Your task to perform on an android device: see sites visited before in the chrome app Image 0: 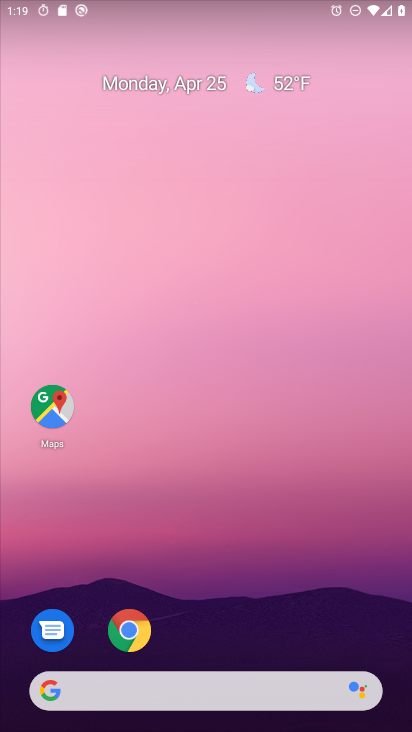
Step 0: drag from (204, 644) to (259, 73)
Your task to perform on an android device: see sites visited before in the chrome app Image 1: 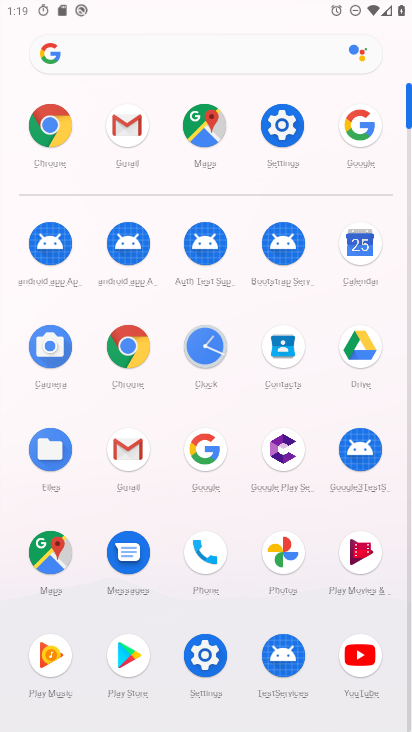
Step 1: click (133, 348)
Your task to perform on an android device: see sites visited before in the chrome app Image 2: 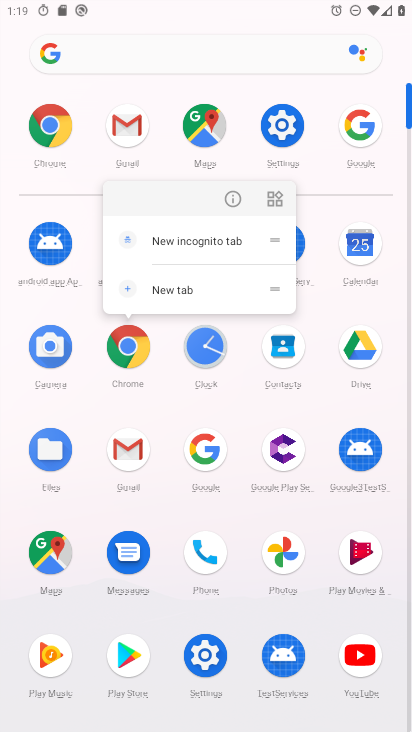
Step 2: click (221, 214)
Your task to perform on an android device: see sites visited before in the chrome app Image 3: 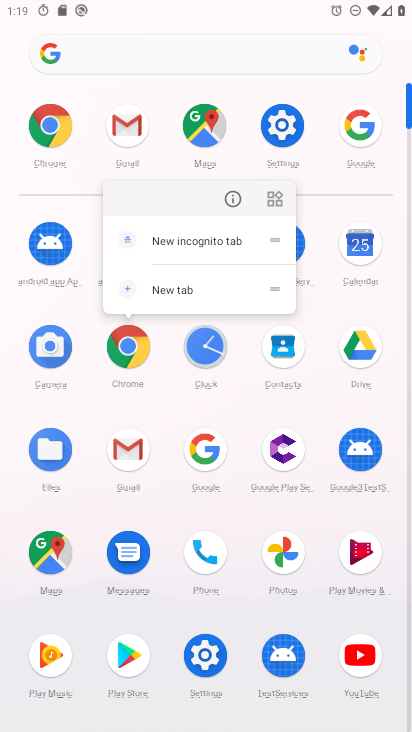
Step 3: click (222, 212)
Your task to perform on an android device: see sites visited before in the chrome app Image 4: 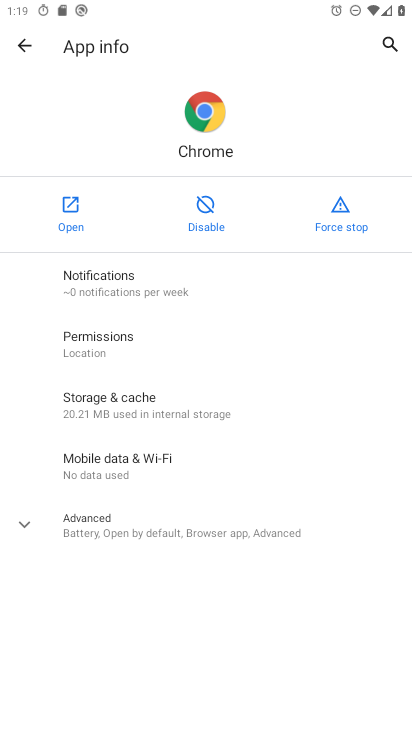
Step 4: click (58, 208)
Your task to perform on an android device: see sites visited before in the chrome app Image 5: 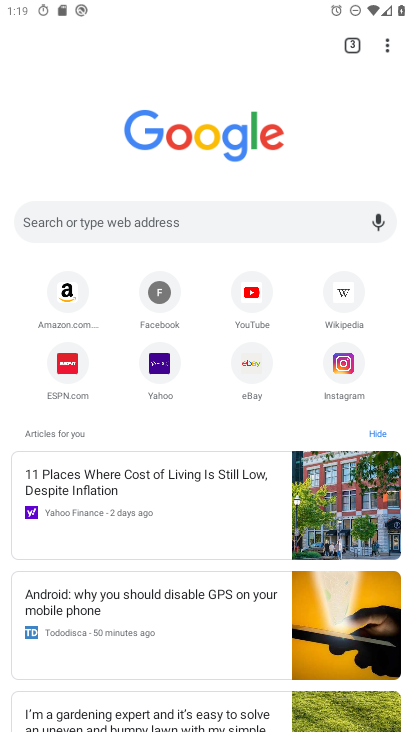
Step 5: drag from (393, 39) to (257, 439)
Your task to perform on an android device: see sites visited before in the chrome app Image 6: 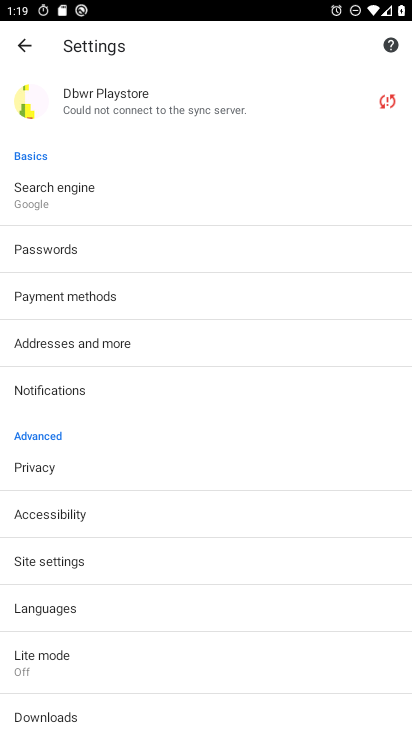
Step 6: click (104, 552)
Your task to perform on an android device: see sites visited before in the chrome app Image 7: 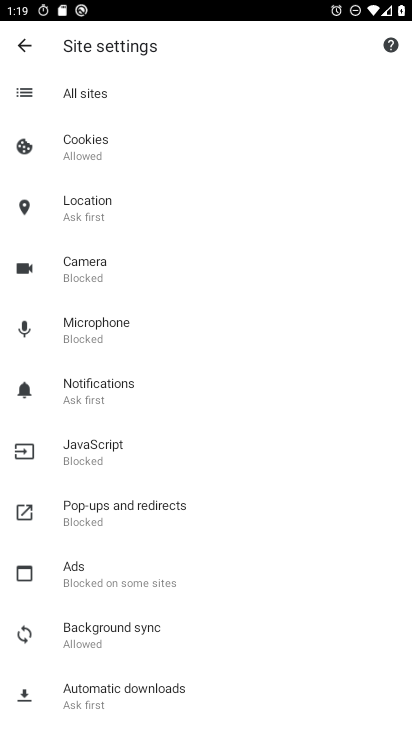
Step 7: drag from (238, 236) to (218, 619)
Your task to perform on an android device: see sites visited before in the chrome app Image 8: 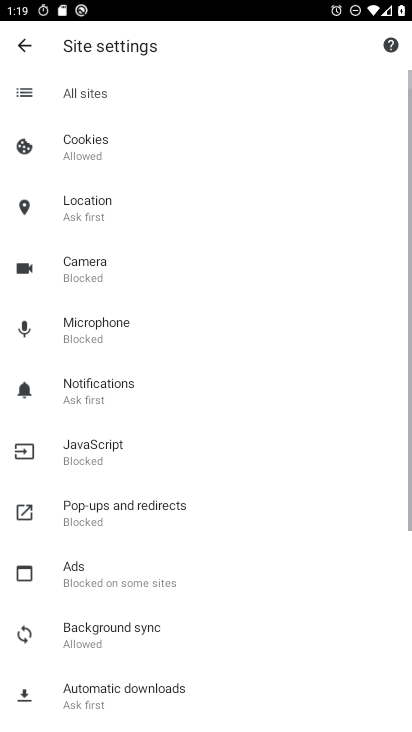
Step 8: drag from (214, 606) to (291, 246)
Your task to perform on an android device: see sites visited before in the chrome app Image 9: 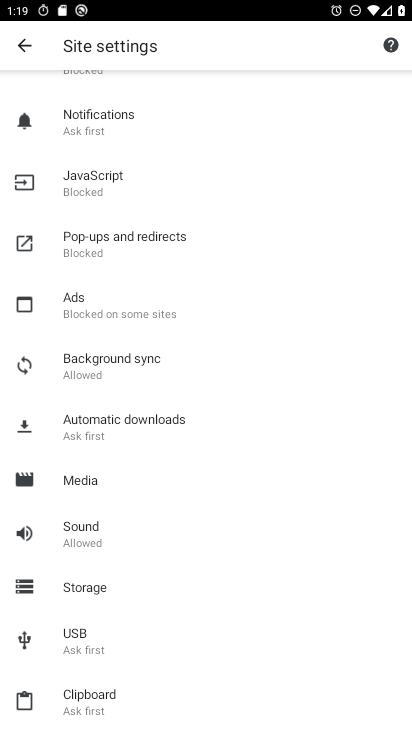
Step 9: drag from (278, 280) to (266, 728)
Your task to perform on an android device: see sites visited before in the chrome app Image 10: 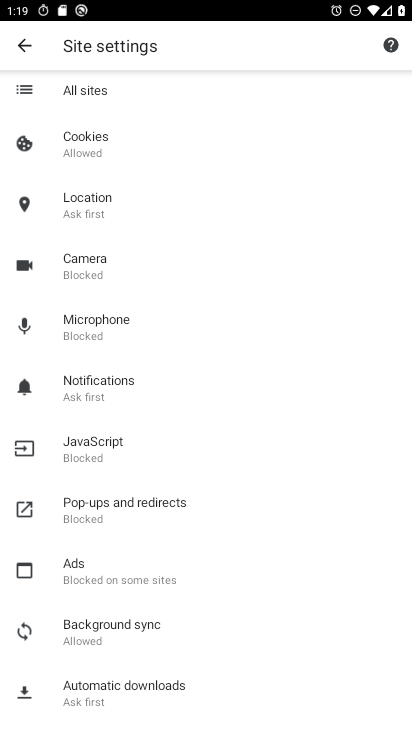
Step 10: click (22, 46)
Your task to perform on an android device: see sites visited before in the chrome app Image 11: 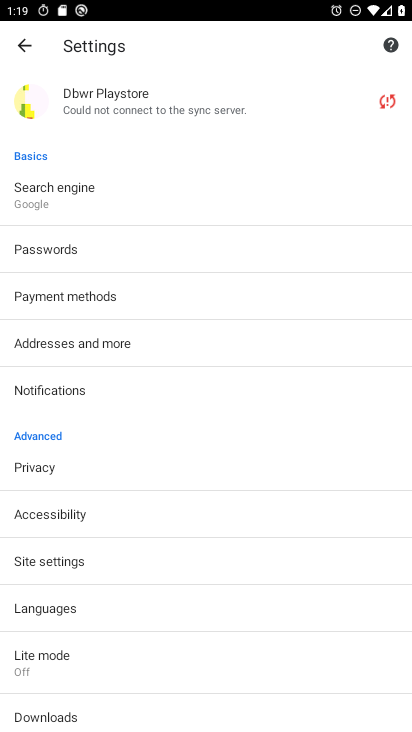
Step 11: click (22, 47)
Your task to perform on an android device: see sites visited before in the chrome app Image 12: 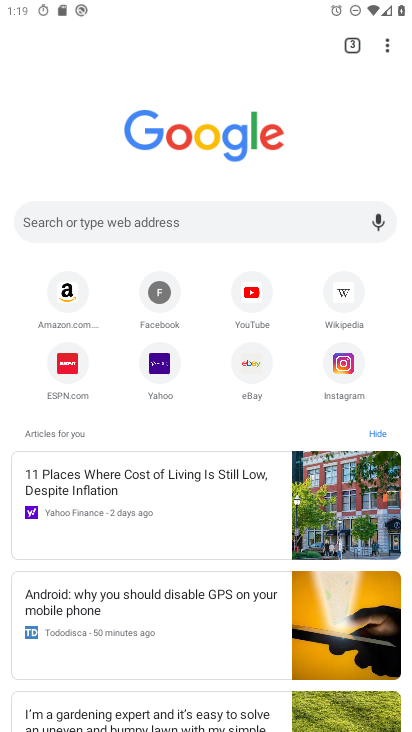
Step 12: task complete